Your task to perform on an android device: turn on airplane mode Image 0: 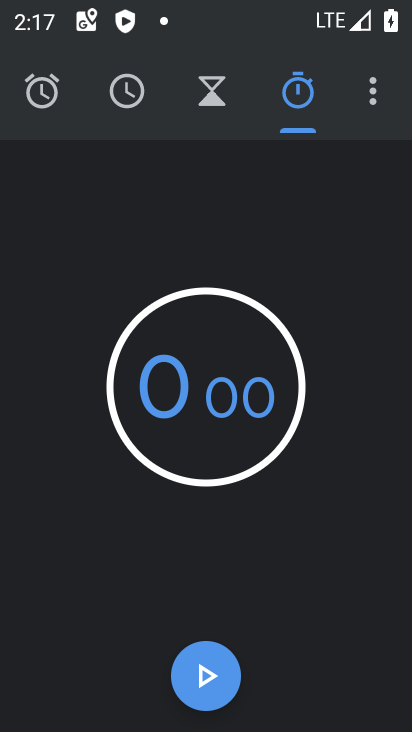
Step 0: press home button
Your task to perform on an android device: turn on airplane mode Image 1: 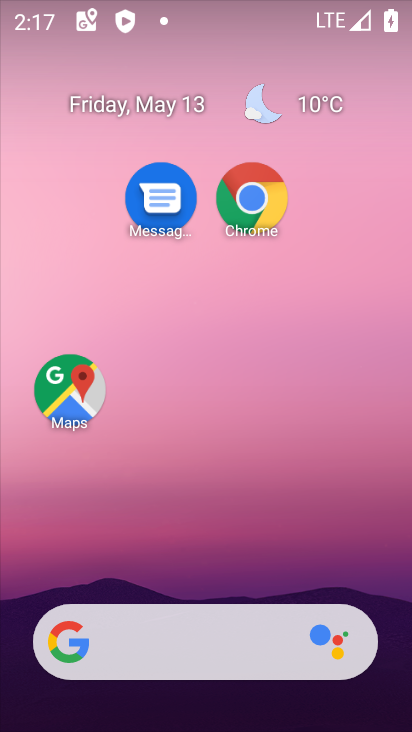
Step 1: drag from (191, 606) to (170, 71)
Your task to perform on an android device: turn on airplane mode Image 2: 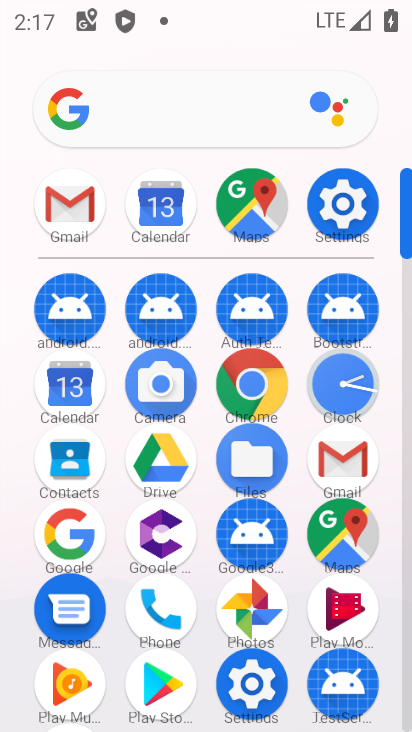
Step 2: click (346, 213)
Your task to perform on an android device: turn on airplane mode Image 3: 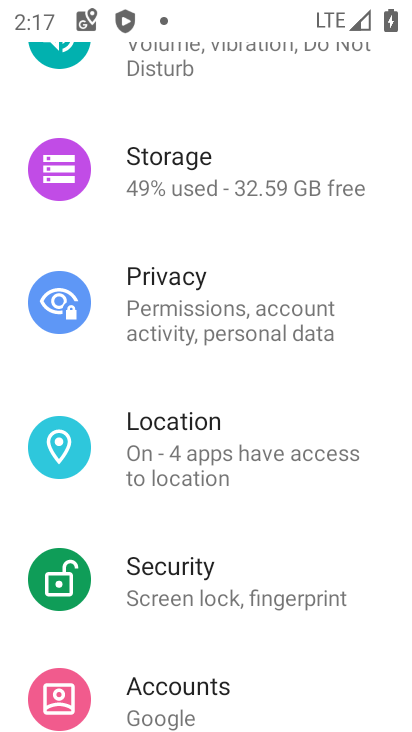
Step 3: drag from (180, 241) to (163, 721)
Your task to perform on an android device: turn on airplane mode Image 4: 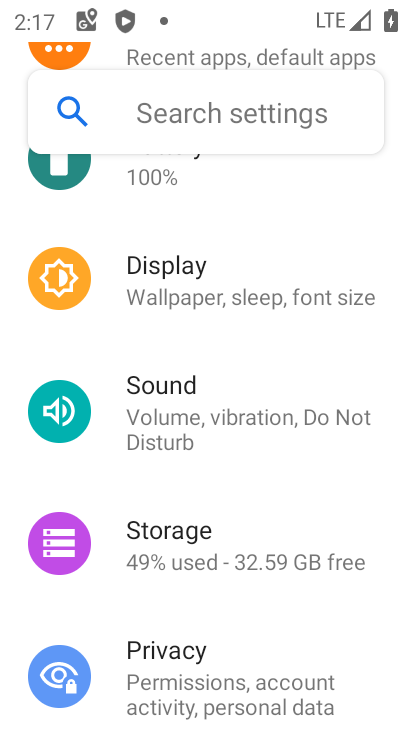
Step 4: drag from (206, 176) to (251, 516)
Your task to perform on an android device: turn on airplane mode Image 5: 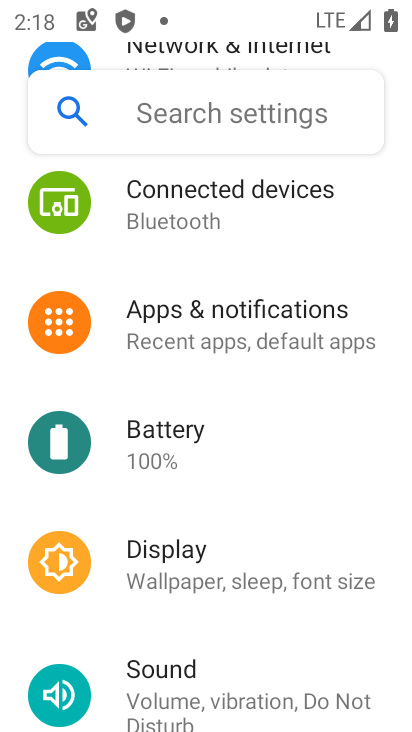
Step 5: drag from (244, 229) to (238, 639)
Your task to perform on an android device: turn on airplane mode Image 6: 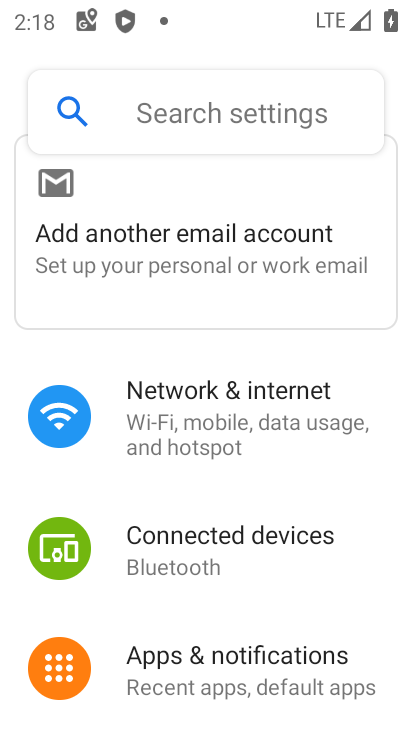
Step 6: click (219, 401)
Your task to perform on an android device: turn on airplane mode Image 7: 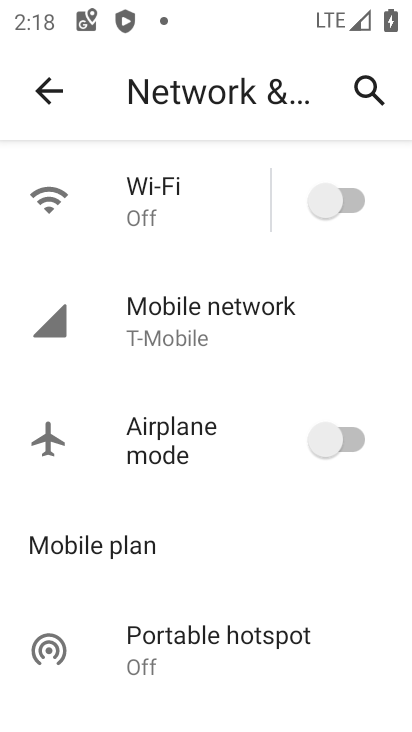
Step 7: click (311, 442)
Your task to perform on an android device: turn on airplane mode Image 8: 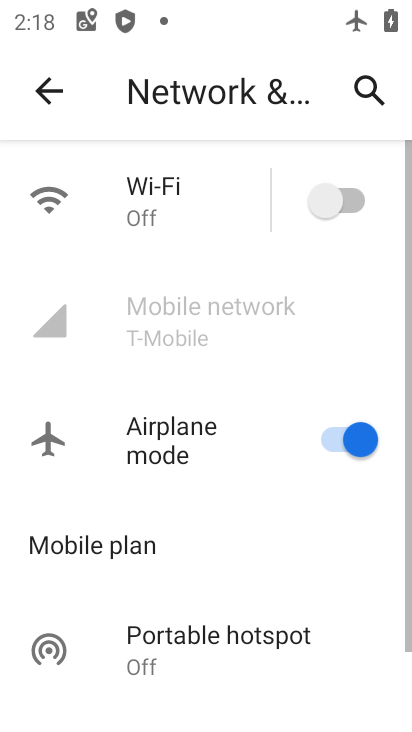
Step 8: task complete